Your task to perform on an android device: toggle wifi Image 0: 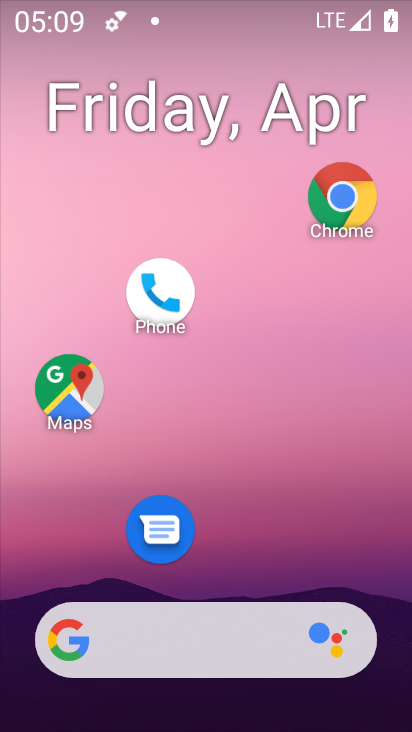
Step 0: drag from (176, 73) to (200, 588)
Your task to perform on an android device: toggle wifi Image 1: 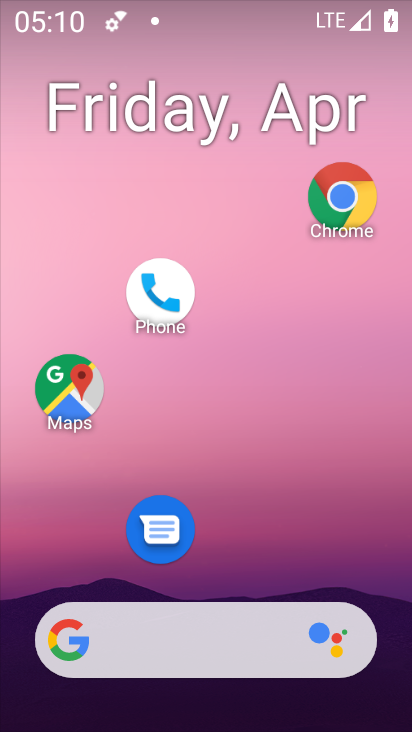
Step 1: drag from (238, 8) to (236, 183)
Your task to perform on an android device: toggle wifi Image 2: 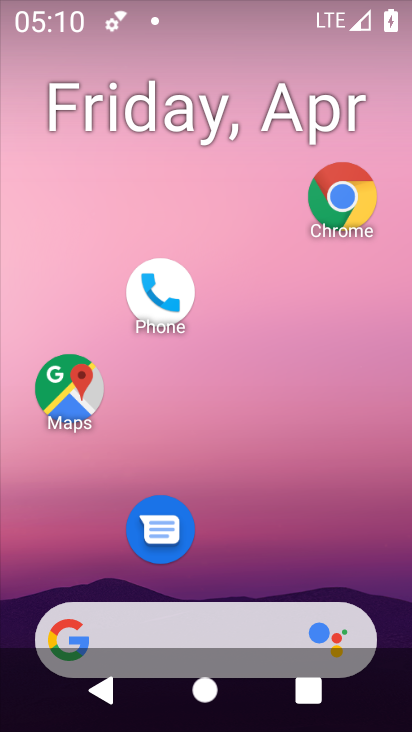
Step 2: drag from (229, 10) to (261, 629)
Your task to perform on an android device: toggle wifi Image 3: 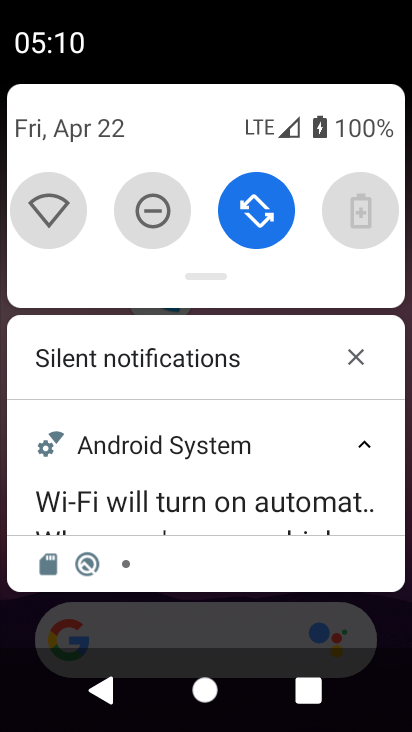
Step 3: click (54, 211)
Your task to perform on an android device: toggle wifi Image 4: 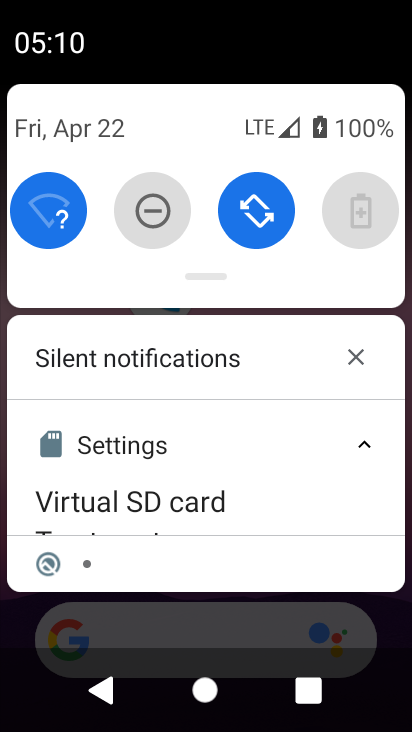
Step 4: task complete